Your task to perform on an android device: Open the web browser Image 0: 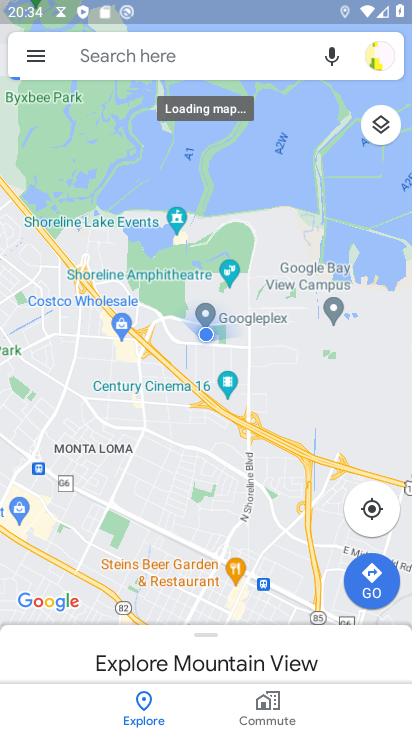
Step 0: press back button
Your task to perform on an android device: Open the web browser Image 1: 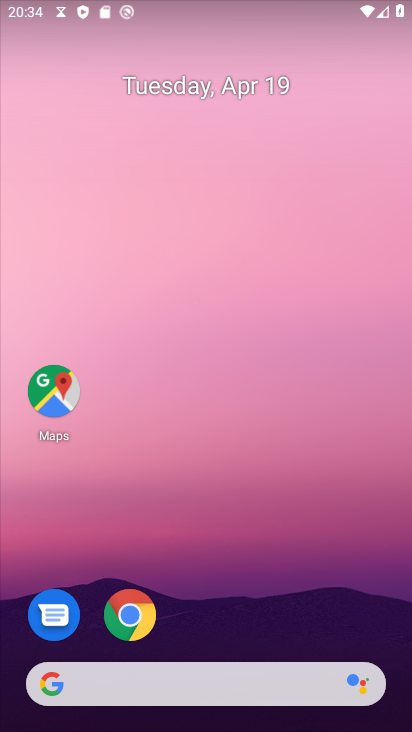
Step 1: drag from (265, 616) to (193, 6)
Your task to perform on an android device: Open the web browser Image 2: 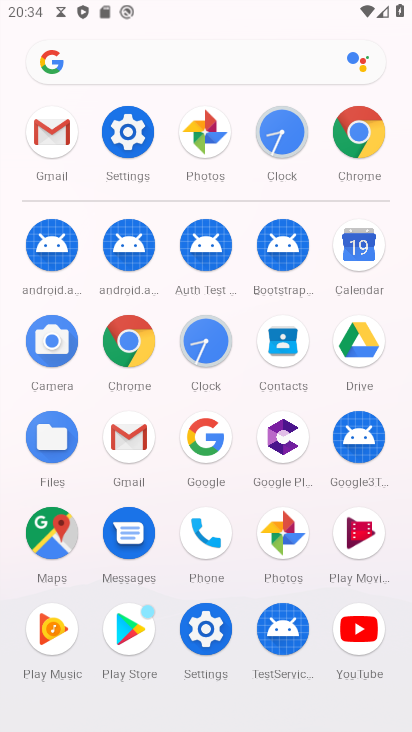
Step 2: click (357, 156)
Your task to perform on an android device: Open the web browser Image 3: 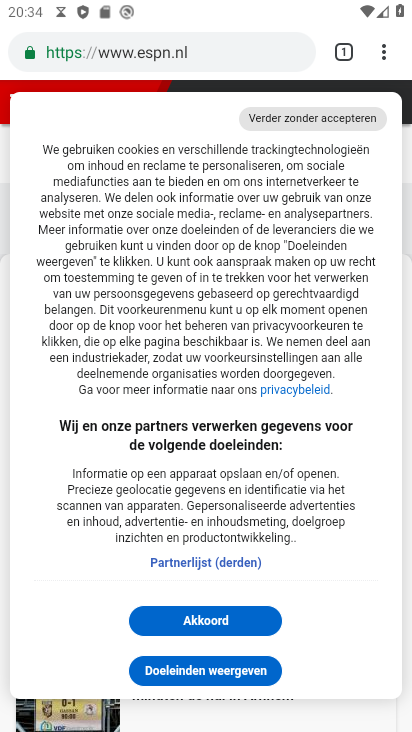
Step 3: task complete